Your task to perform on an android device: toggle airplane mode Image 0: 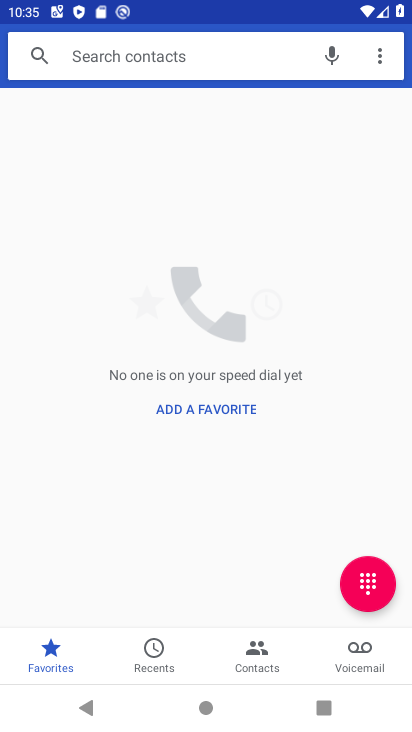
Step 0: press home button
Your task to perform on an android device: toggle airplane mode Image 1: 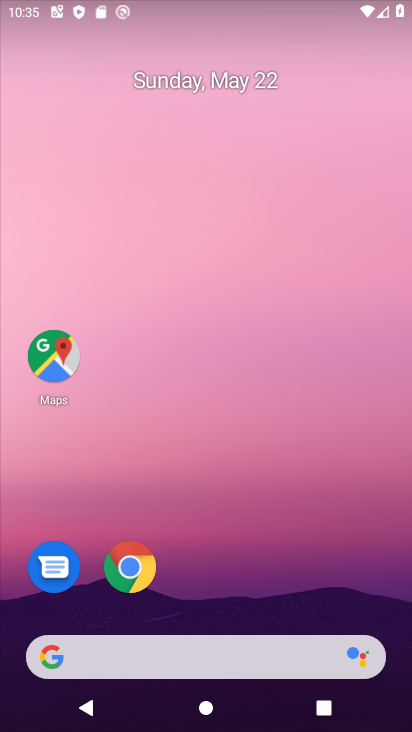
Step 1: drag from (345, 587) to (343, 66)
Your task to perform on an android device: toggle airplane mode Image 2: 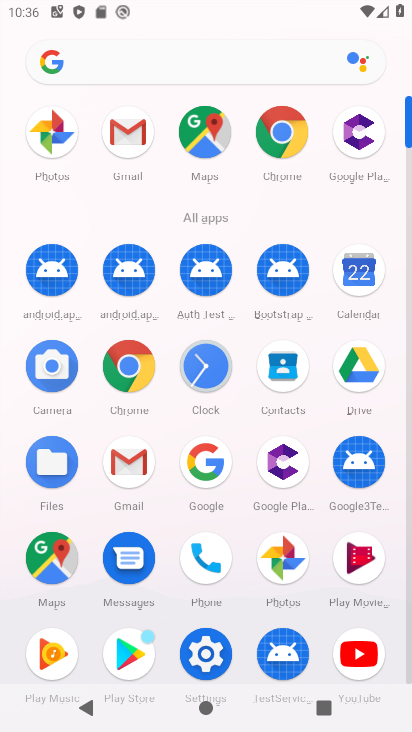
Step 2: click (214, 660)
Your task to perform on an android device: toggle airplane mode Image 3: 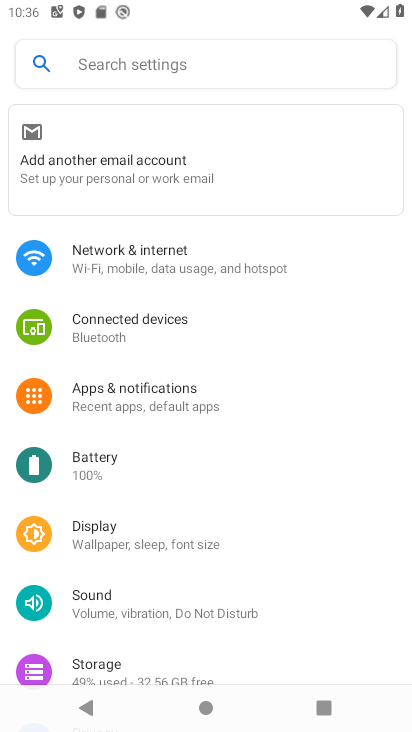
Step 3: click (177, 269)
Your task to perform on an android device: toggle airplane mode Image 4: 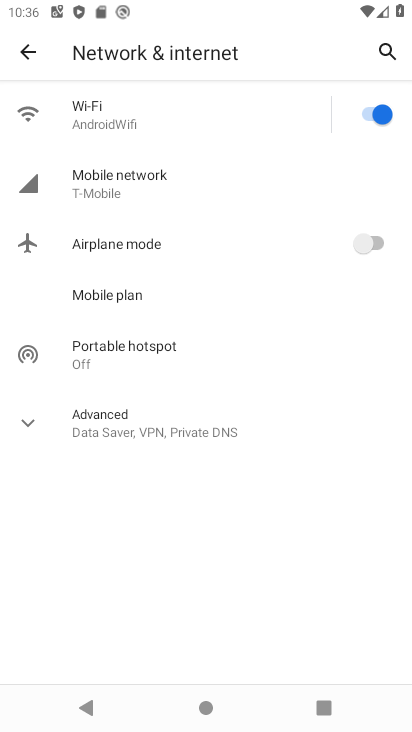
Step 4: click (383, 238)
Your task to perform on an android device: toggle airplane mode Image 5: 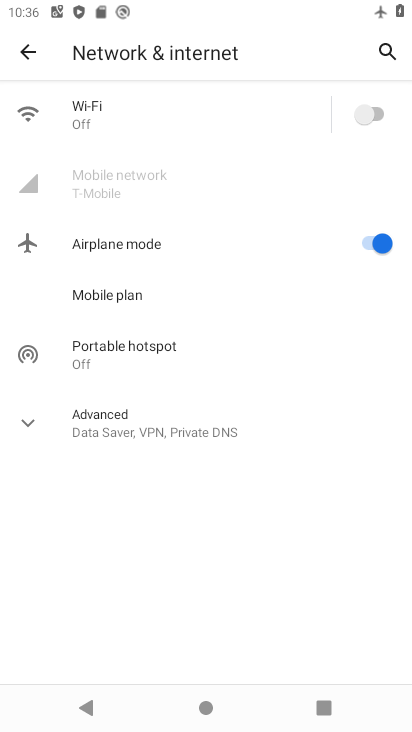
Step 5: task complete